Your task to perform on an android device: Open accessibility settings Image 0: 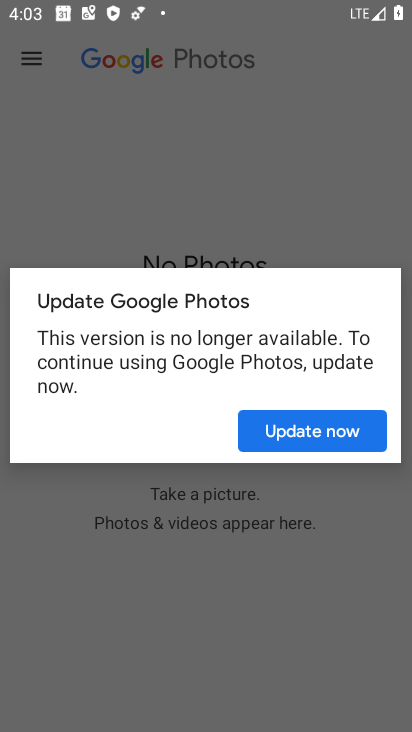
Step 0: press home button
Your task to perform on an android device: Open accessibility settings Image 1: 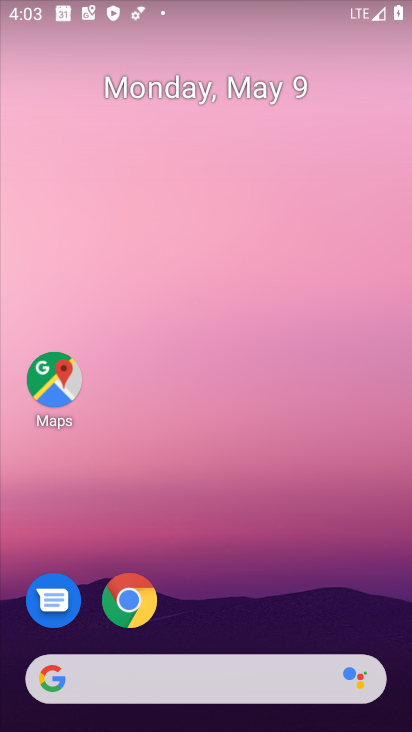
Step 1: drag from (239, 595) to (251, 52)
Your task to perform on an android device: Open accessibility settings Image 2: 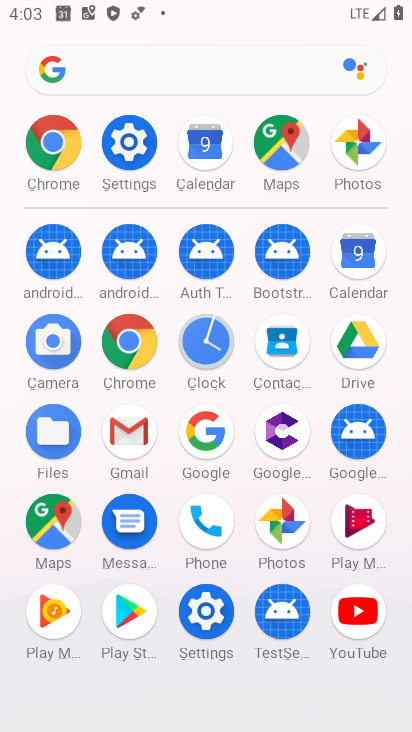
Step 2: click (124, 135)
Your task to perform on an android device: Open accessibility settings Image 3: 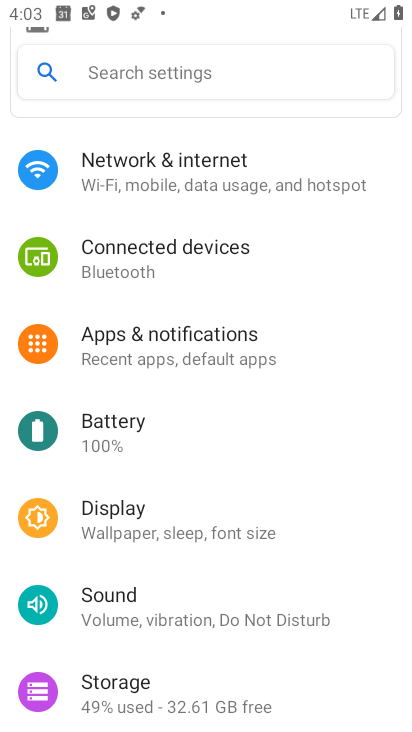
Step 3: drag from (184, 616) to (242, 224)
Your task to perform on an android device: Open accessibility settings Image 4: 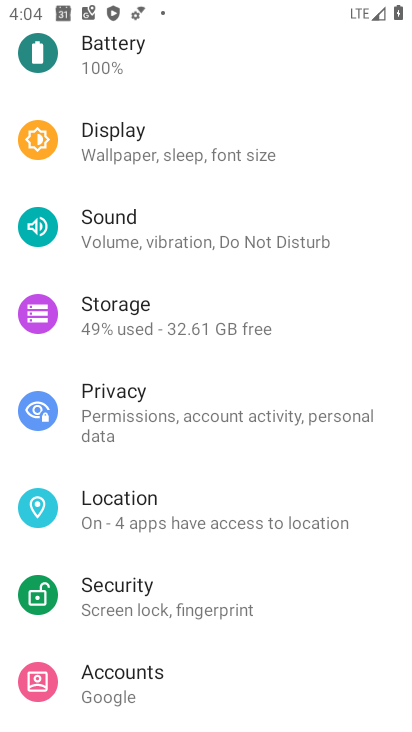
Step 4: drag from (219, 694) to (297, 139)
Your task to perform on an android device: Open accessibility settings Image 5: 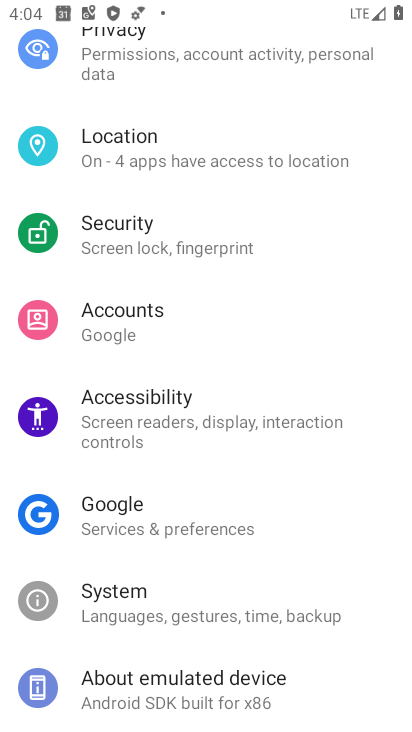
Step 5: click (165, 419)
Your task to perform on an android device: Open accessibility settings Image 6: 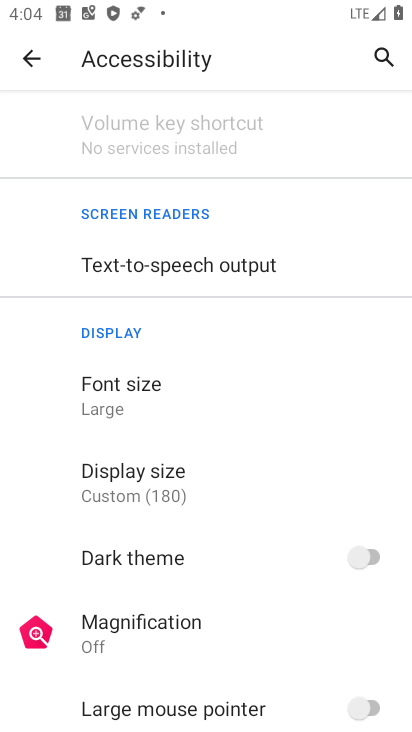
Step 6: task complete